Your task to perform on an android device: toggle wifi Image 0: 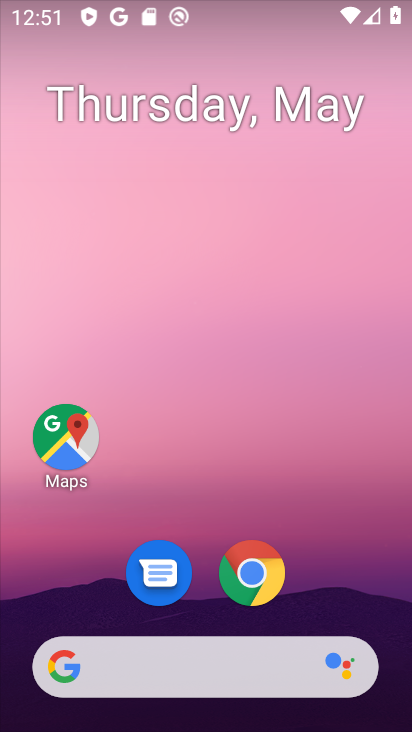
Step 0: drag from (297, 579) to (265, 62)
Your task to perform on an android device: toggle wifi Image 1: 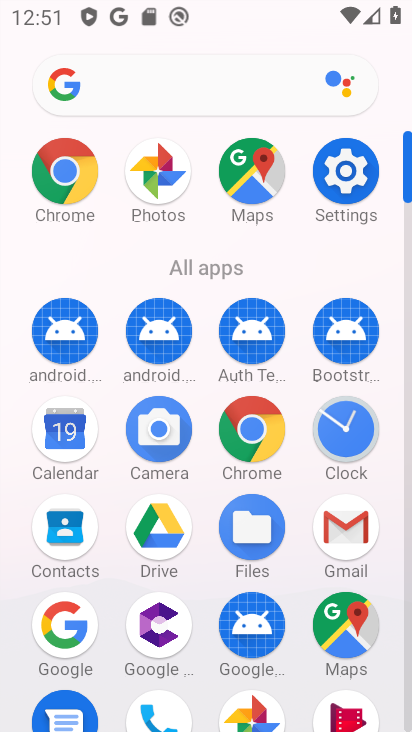
Step 1: drag from (1, 561) to (10, 278)
Your task to perform on an android device: toggle wifi Image 2: 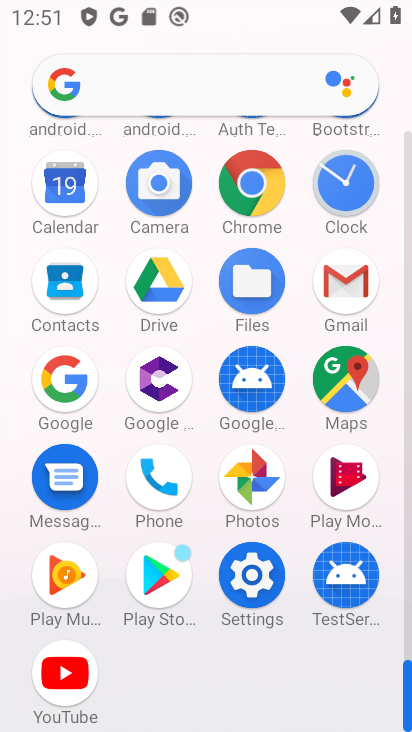
Step 2: click (248, 569)
Your task to perform on an android device: toggle wifi Image 3: 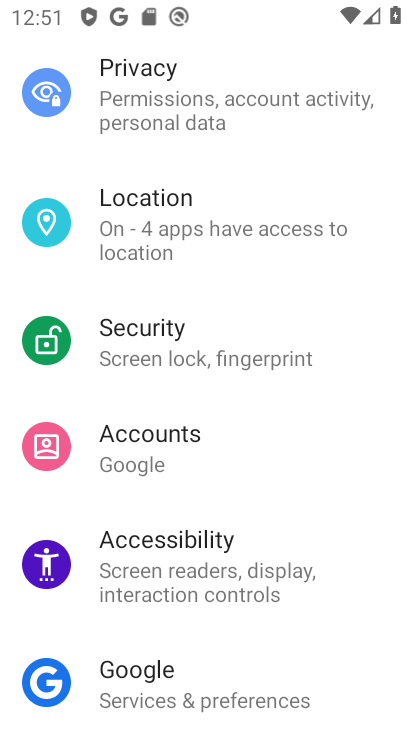
Step 3: drag from (264, 131) to (276, 542)
Your task to perform on an android device: toggle wifi Image 4: 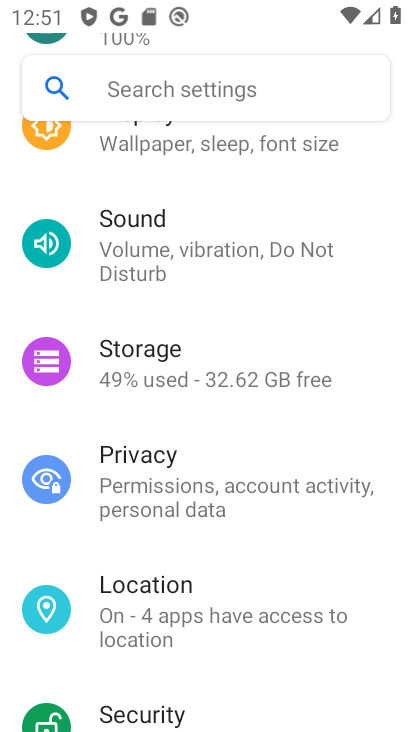
Step 4: drag from (262, 419) to (269, 658)
Your task to perform on an android device: toggle wifi Image 5: 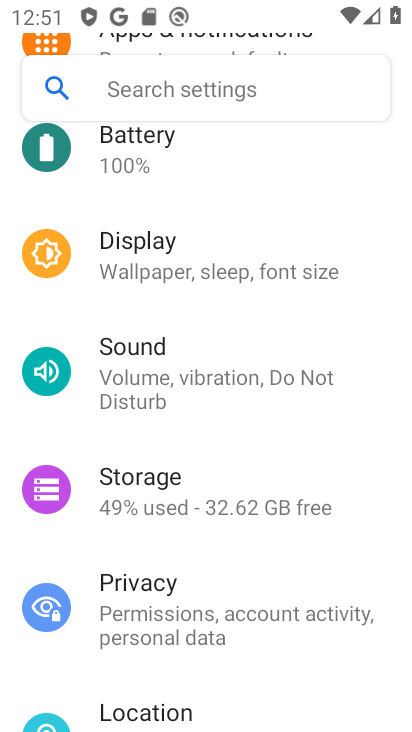
Step 5: drag from (237, 210) to (230, 571)
Your task to perform on an android device: toggle wifi Image 6: 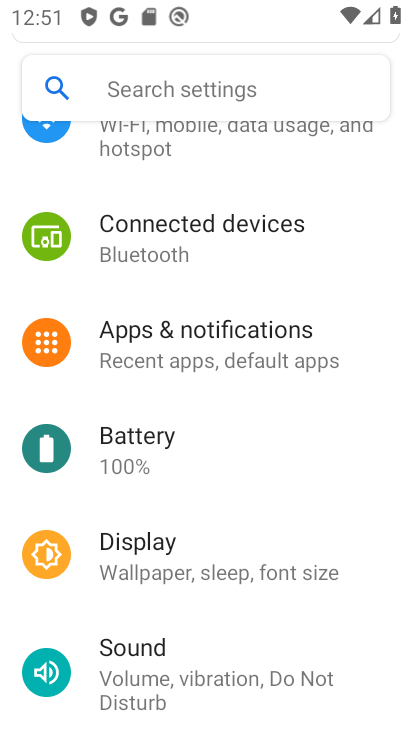
Step 6: drag from (240, 169) to (241, 537)
Your task to perform on an android device: toggle wifi Image 7: 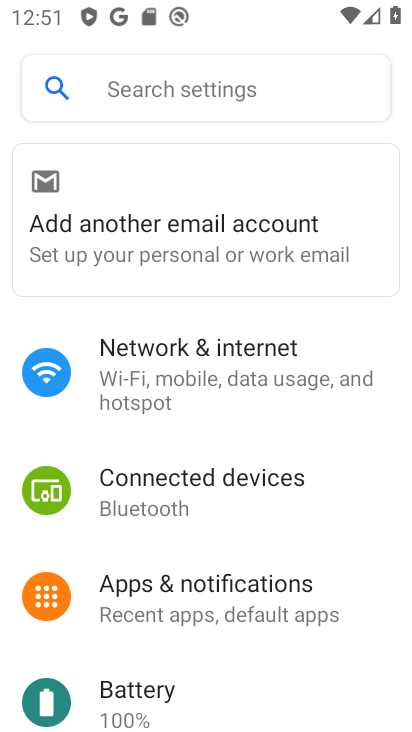
Step 7: click (208, 364)
Your task to perform on an android device: toggle wifi Image 8: 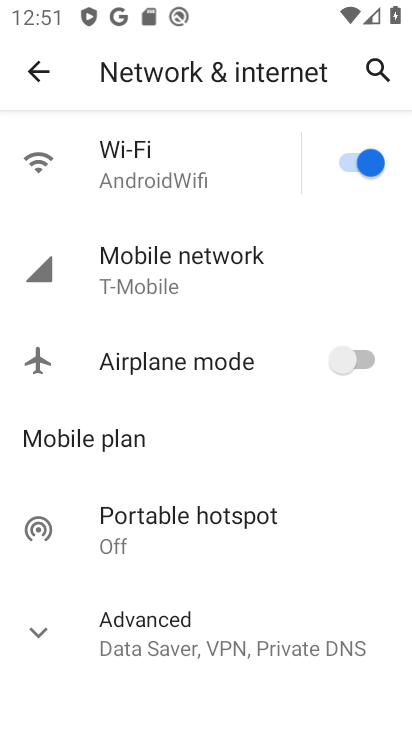
Step 8: click (336, 170)
Your task to perform on an android device: toggle wifi Image 9: 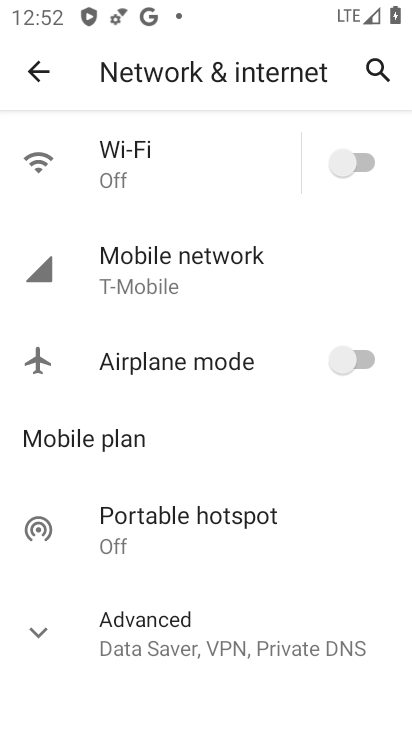
Step 9: task complete